Your task to perform on an android device: change your default location settings in chrome Image 0: 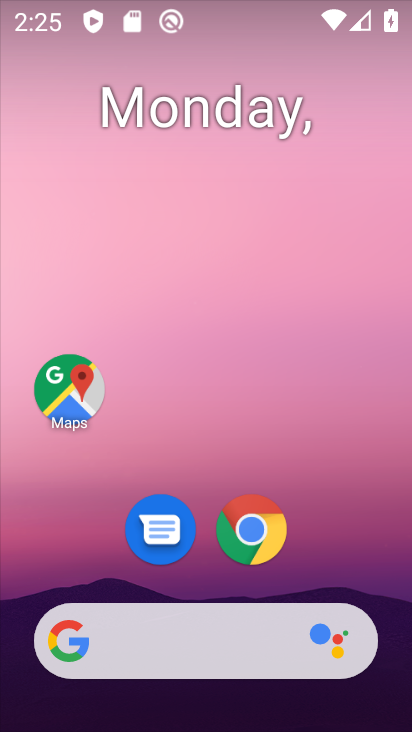
Step 0: drag from (346, 536) to (341, 184)
Your task to perform on an android device: change your default location settings in chrome Image 1: 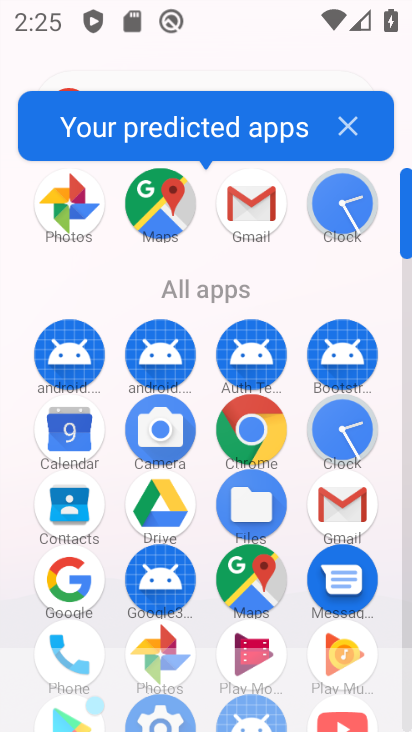
Step 1: click (269, 430)
Your task to perform on an android device: change your default location settings in chrome Image 2: 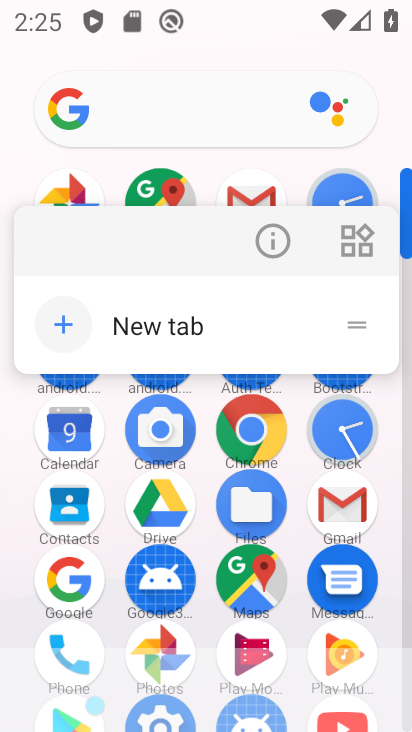
Step 2: click (272, 442)
Your task to perform on an android device: change your default location settings in chrome Image 3: 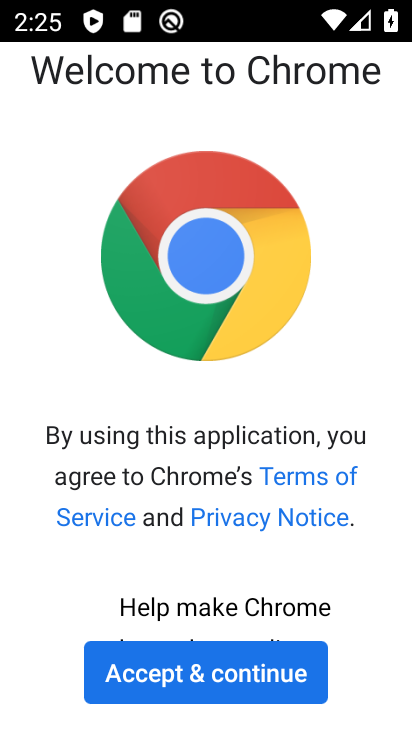
Step 3: click (211, 671)
Your task to perform on an android device: change your default location settings in chrome Image 4: 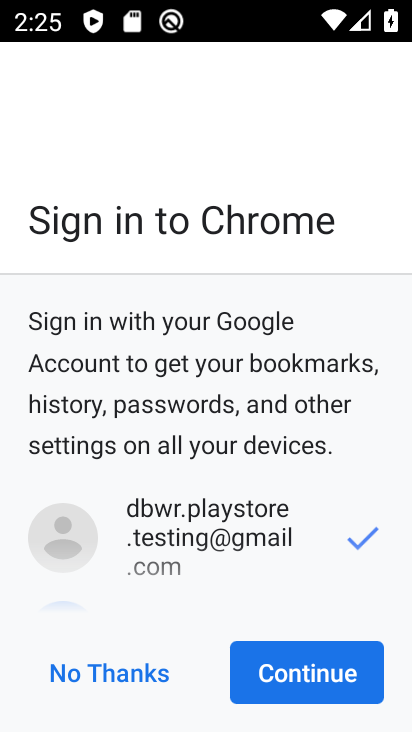
Step 4: click (282, 662)
Your task to perform on an android device: change your default location settings in chrome Image 5: 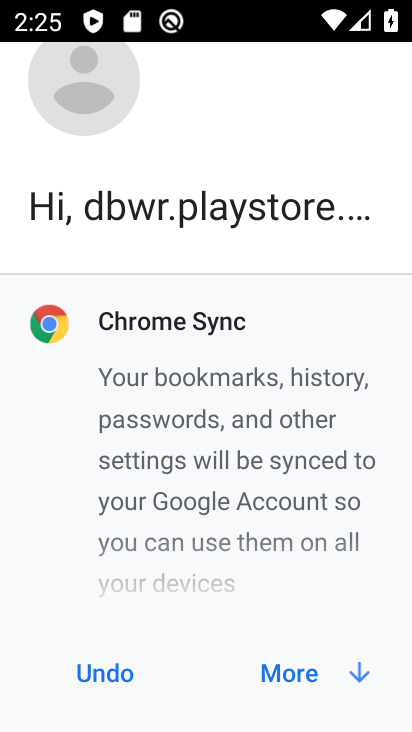
Step 5: click (279, 672)
Your task to perform on an android device: change your default location settings in chrome Image 6: 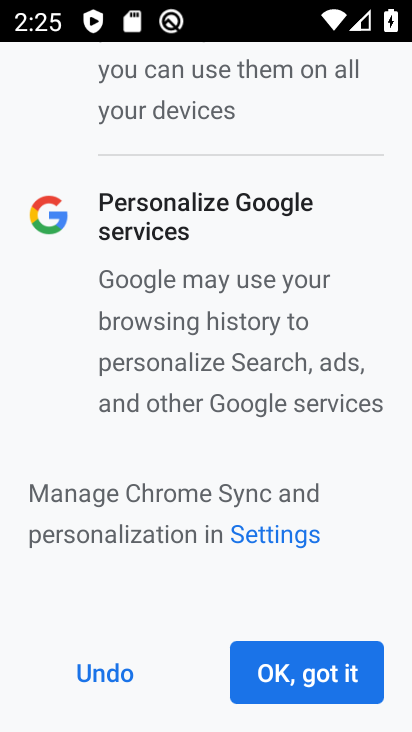
Step 6: click (269, 678)
Your task to perform on an android device: change your default location settings in chrome Image 7: 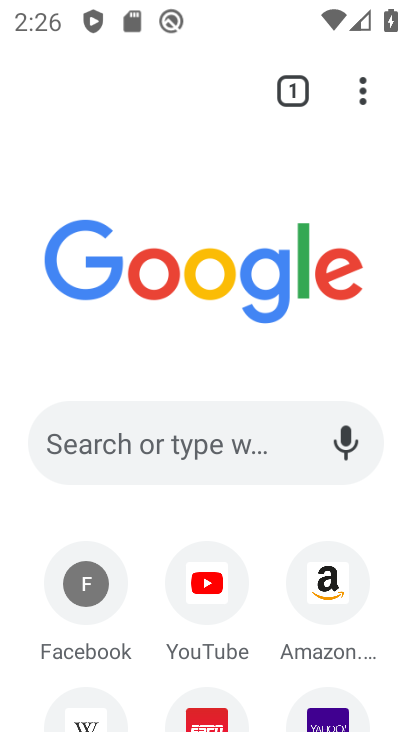
Step 7: drag from (362, 105) to (196, 536)
Your task to perform on an android device: change your default location settings in chrome Image 8: 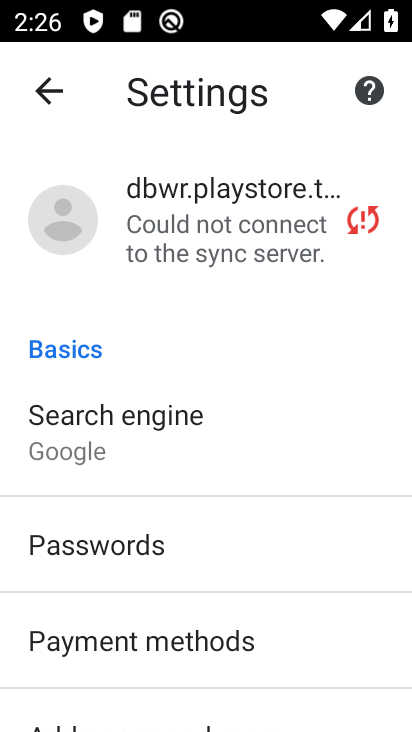
Step 8: drag from (241, 619) to (241, 374)
Your task to perform on an android device: change your default location settings in chrome Image 9: 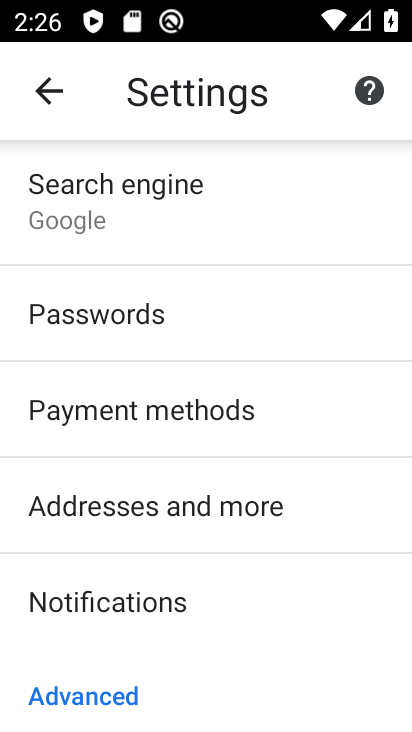
Step 9: drag from (277, 623) to (278, 302)
Your task to perform on an android device: change your default location settings in chrome Image 10: 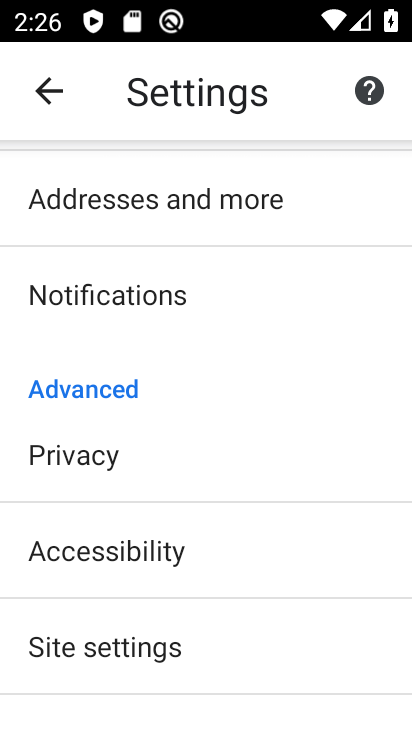
Step 10: drag from (289, 633) to (301, 356)
Your task to perform on an android device: change your default location settings in chrome Image 11: 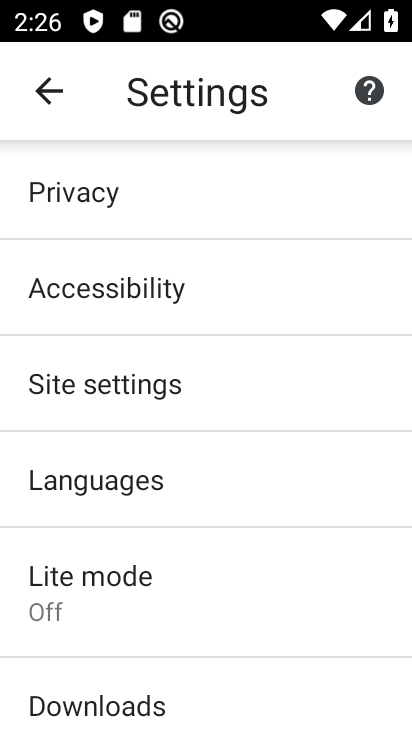
Step 11: click (153, 389)
Your task to perform on an android device: change your default location settings in chrome Image 12: 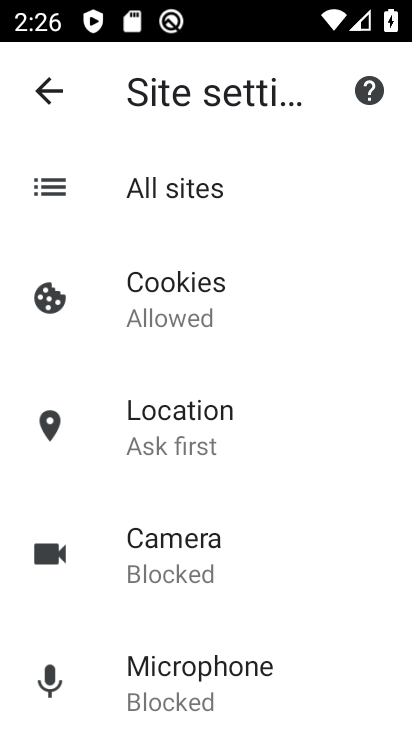
Step 12: drag from (241, 489) to (248, 220)
Your task to perform on an android device: change your default location settings in chrome Image 13: 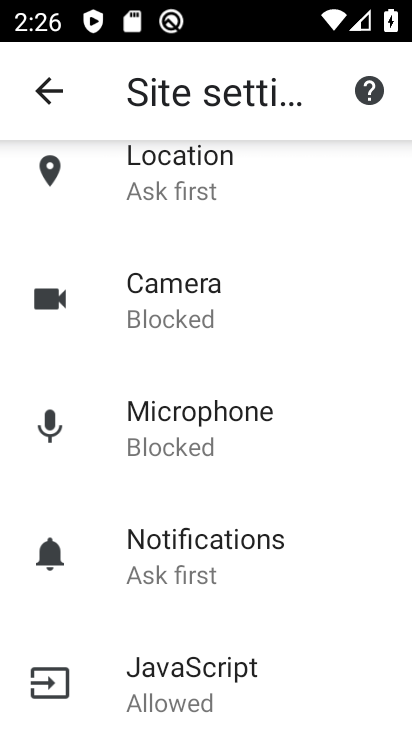
Step 13: drag from (265, 658) to (289, 350)
Your task to perform on an android device: change your default location settings in chrome Image 14: 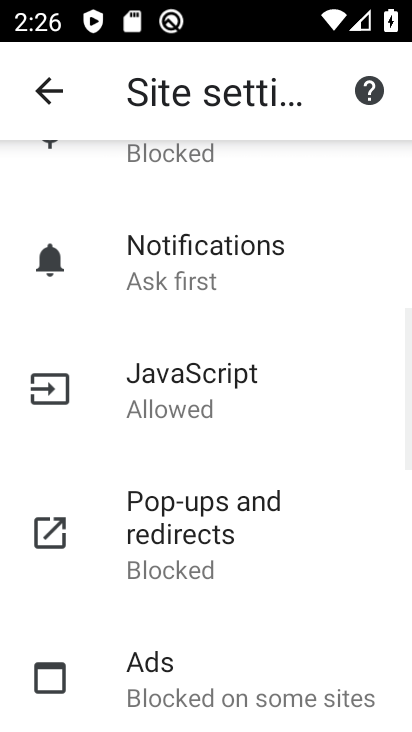
Step 14: drag from (293, 668) to (279, 347)
Your task to perform on an android device: change your default location settings in chrome Image 15: 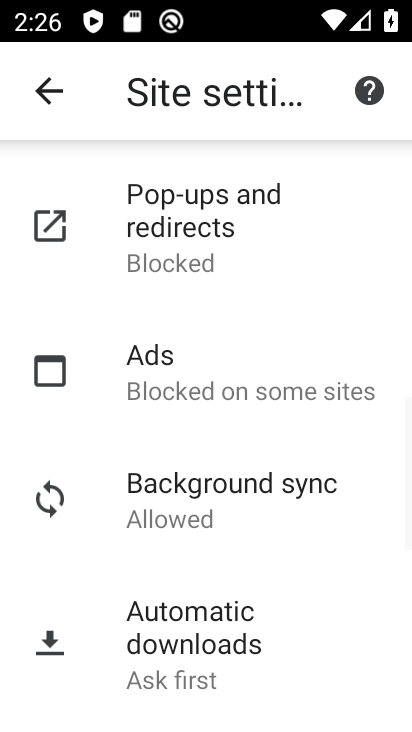
Step 15: drag from (286, 610) to (314, 728)
Your task to perform on an android device: change your default location settings in chrome Image 16: 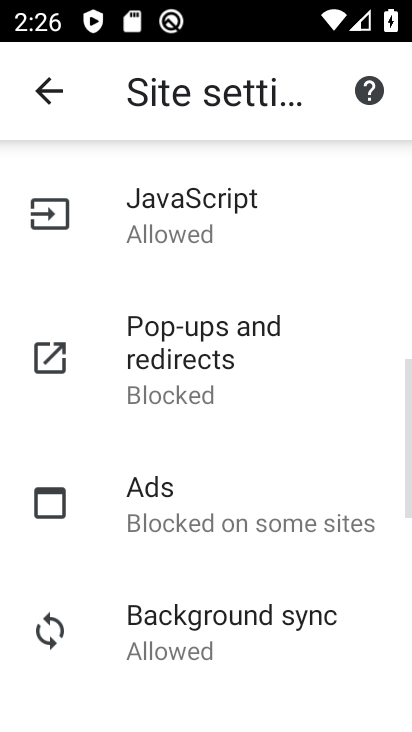
Step 16: drag from (276, 343) to (332, 631)
Your task to perform on an android device: change your default location settings in chrome Image 17: 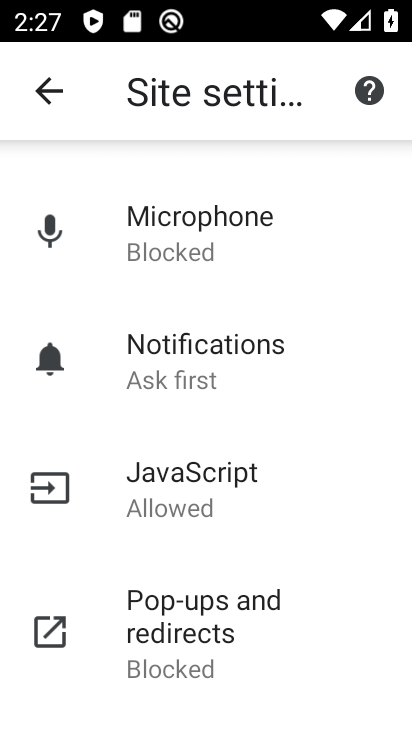
Step 17: drag from (290, 292) to (339, 586)
Your task to perform on an android device: change your default location settings in chrome Image 18: 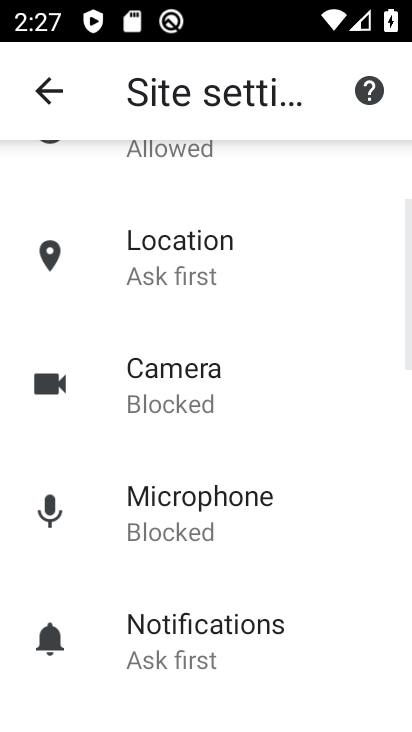
Step 18: click (237, 245)
Your task to perform on an android device: change your default location settings in chrome Image 19: 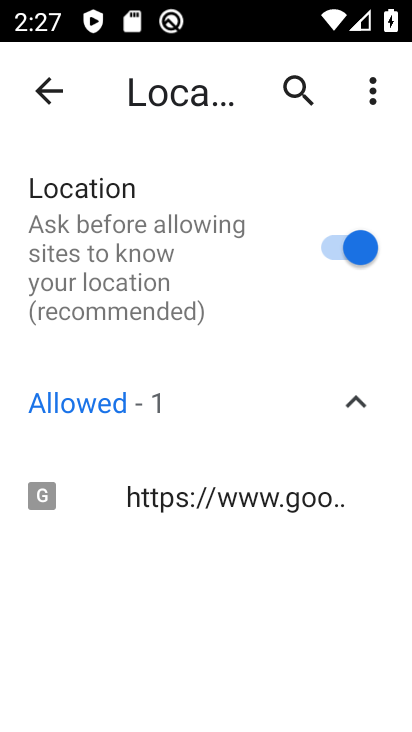
Step 19: click (337, 240)
Your task to perform on an android device: change your default location settings in chrome Image 20: 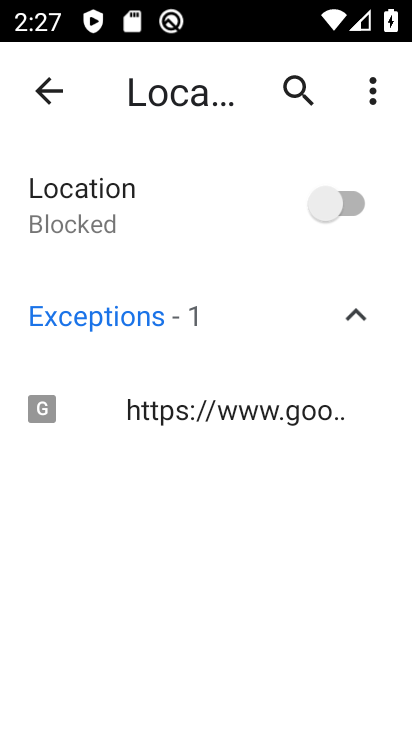
Step 20: task complete